Your task to perform on an android device: change keyboard looks Image 0: 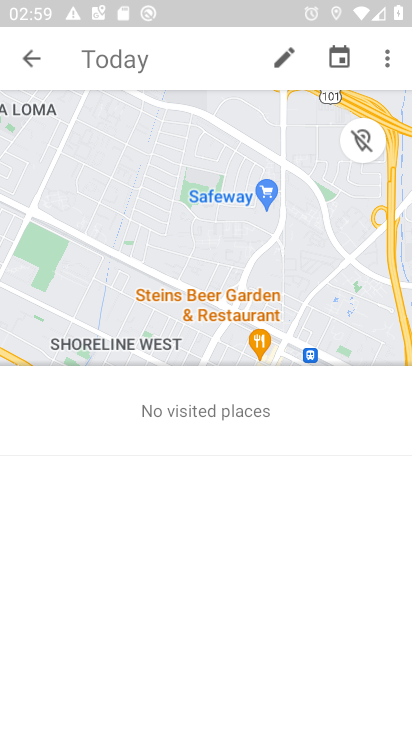
Step 0: press home button
Your task to perform on an android device: change keyboard looks Image 1: 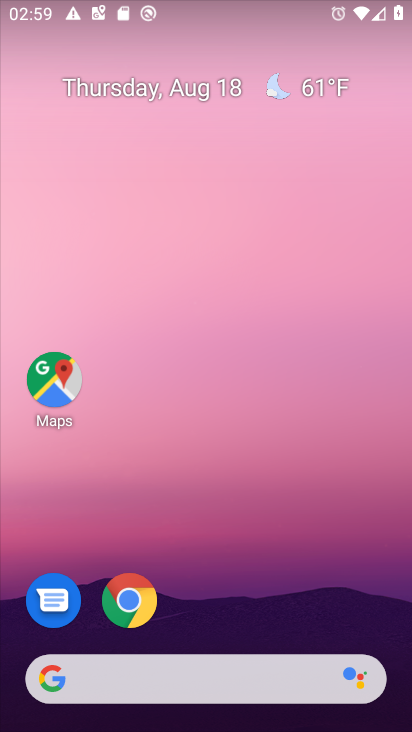
Step 1: drag from (270, 641) to (280, 104)
Your task to perform on an android device: change keyboard looks Image 2: 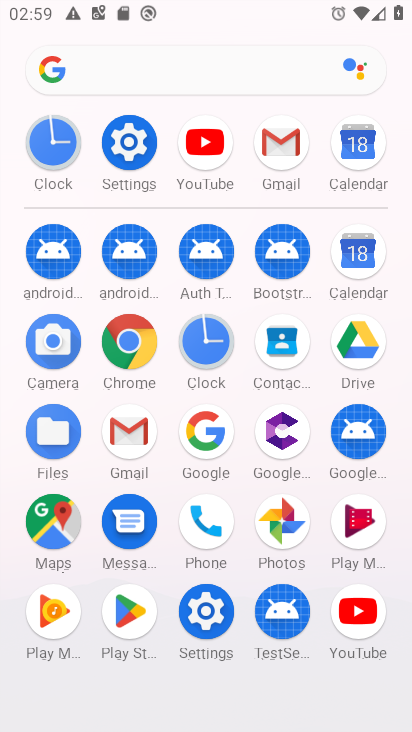
Step 2: click (132, 151)
Your task to perform on an android device: change keyboard looks Image 3: 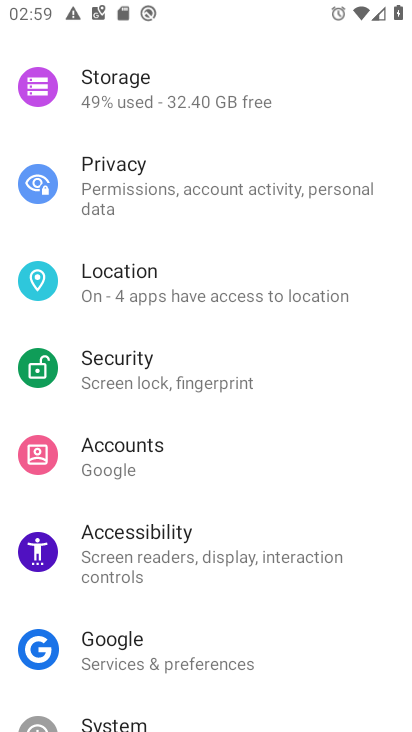
Step 3: drag from (275, 632) to (281, 381)
Your task to perform on an android device: change keyboard looks Image 4: 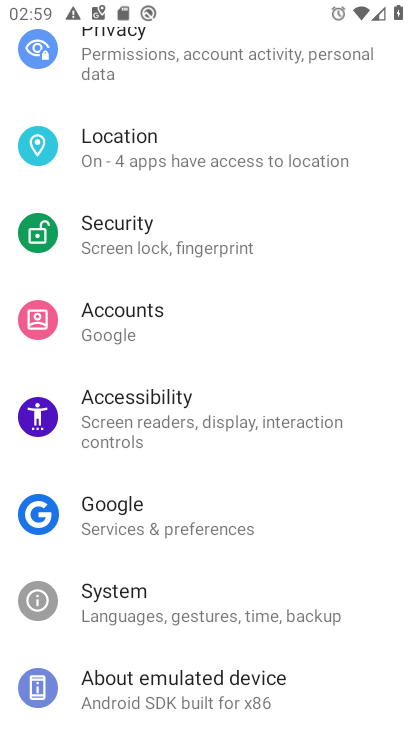
Step 4: click (125, 609)
Your task to perform on an android device: change keyboard looks Image 5: 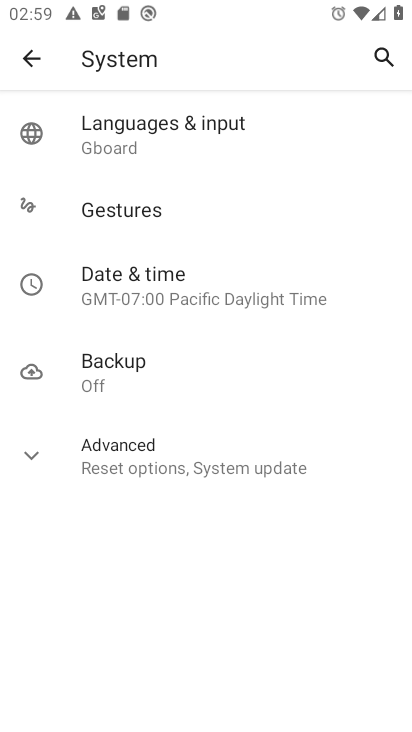
Step 5: click (125, 139)
Your task to perform on an android device: change keyboard looks Image 6: 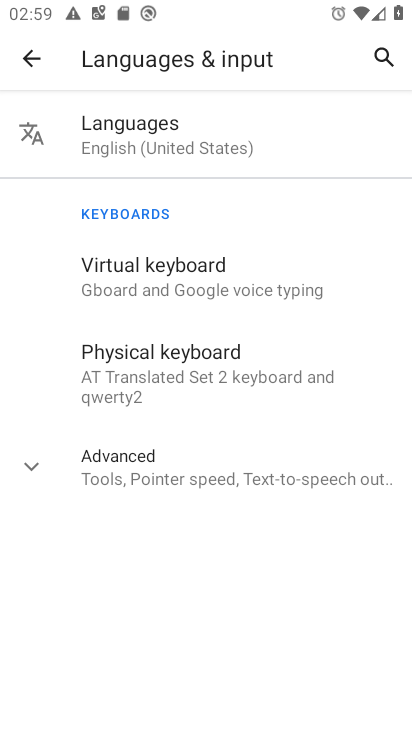
Step 6: click (146, 279)
Your task to perform on an android device: change keyboard looks Image 7: 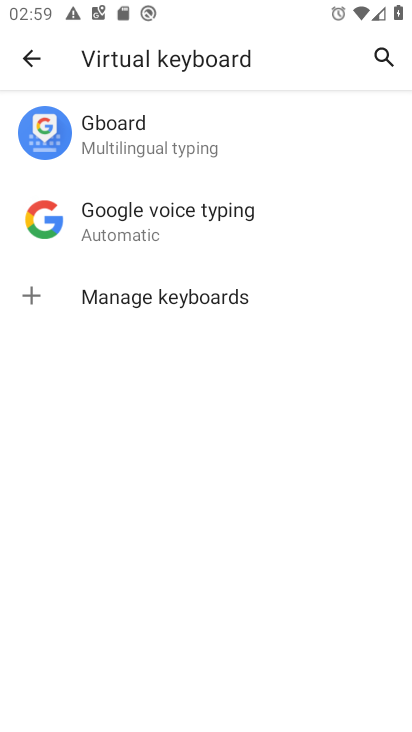
Step 7: click (135, 147)
Your task to perform on an android device: change keyboard looks Image 8: 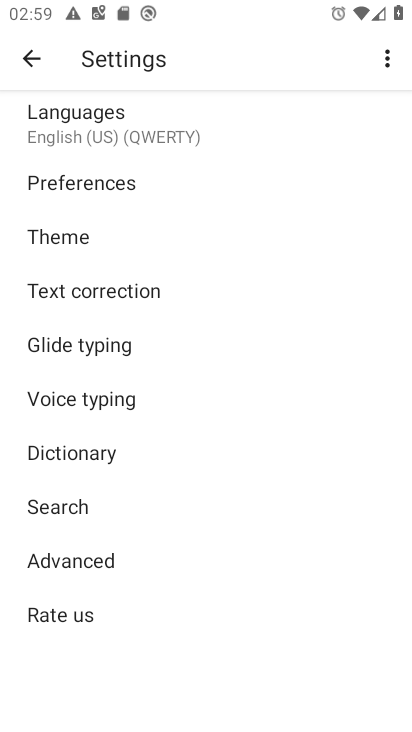
Step 8: click (50, 247)
Your task to perform on an android device: change keyboard looks Image 9: 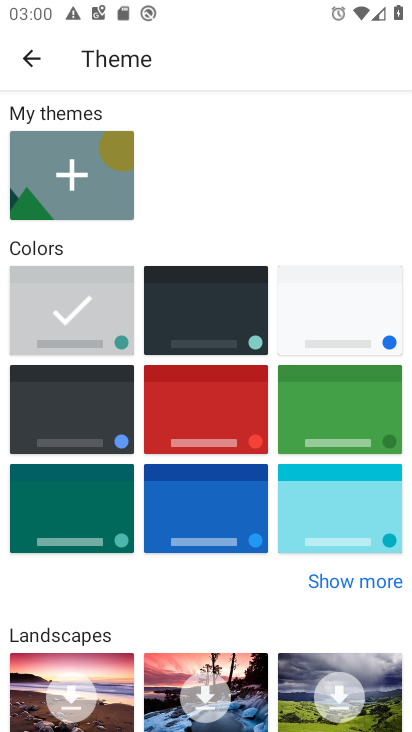
Step 9: click (183, 410)
Your task to perform on an android device: change keyboard looks Image 10: 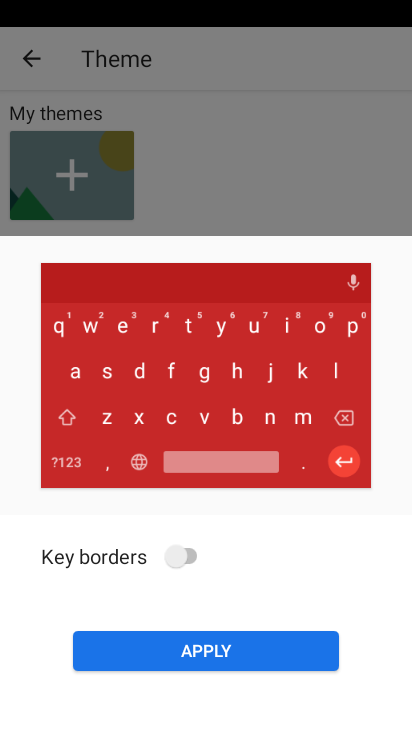
Step 10: click (156, 661)
Your task to perform on an android device: change keyboard looks Image 11: 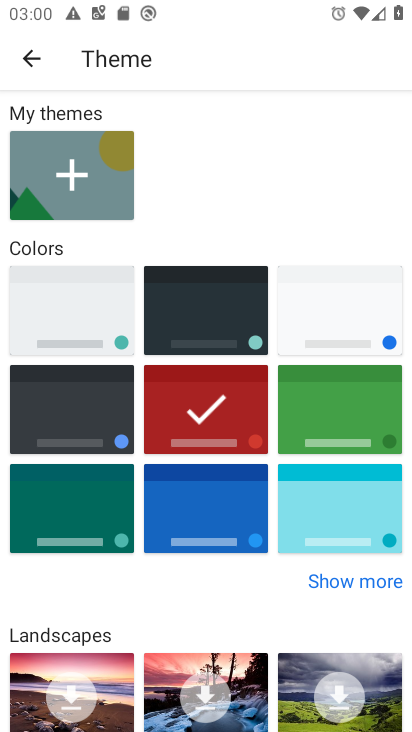
Step 11: task complete